Your task to perform on an android device: turn pop-ups on in chrome Image 0: 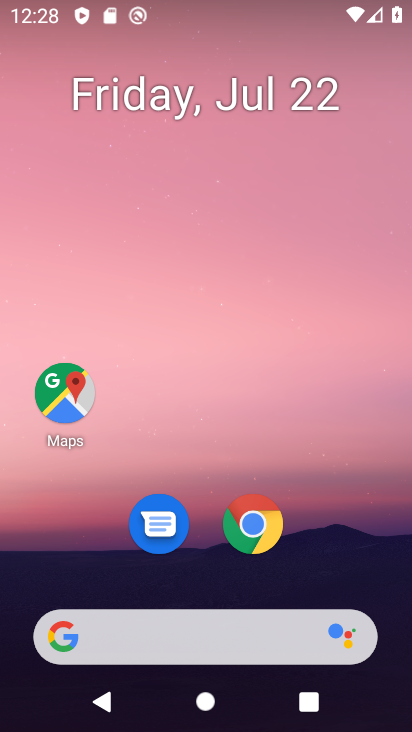
Step 0: click (257, 532)
Your task to perform on an android device: turn pop-ups on in chrome Image 1: 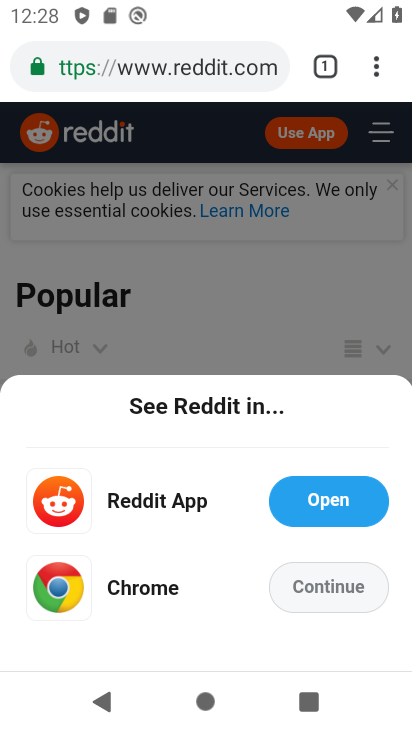
Step 1: drag from (379, 62) to (192, 532)
Your task to perform on an android device: turn pop-ups on in chrome Image 2: 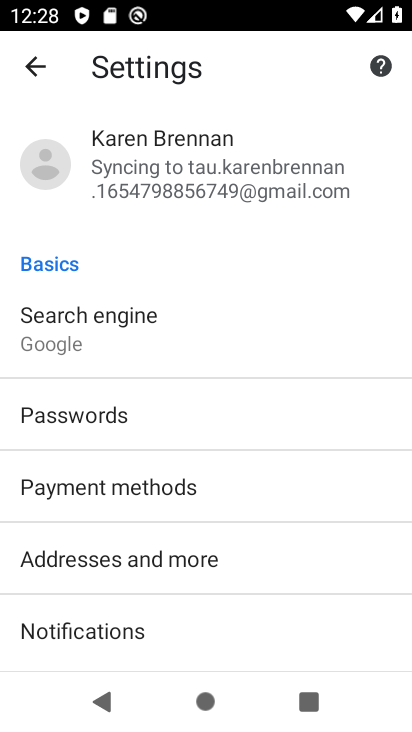
Step 2: drag from (190, 607) to (309, 243)
Your task to perform on an android device: turn pop-ups on in chrome Image 3: 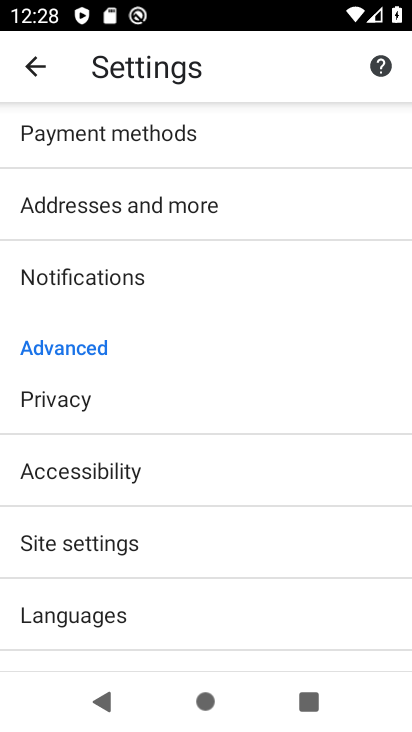
Step 3: click (129, 555)
Your task to perform on an android device: turn pop-ups on in chrome Image 4: 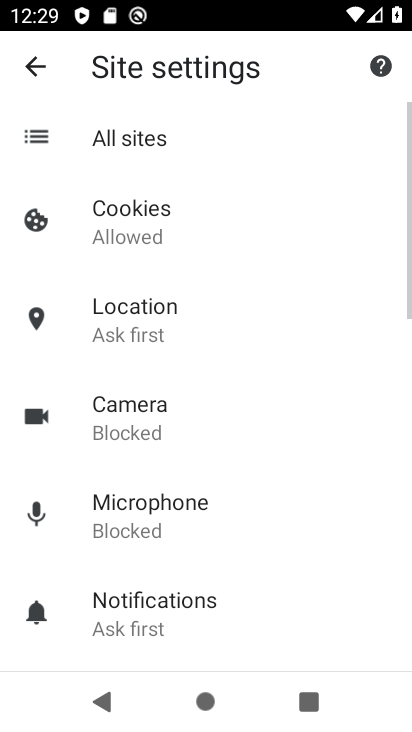
Step 4: drag from (235, 607) to (369, 141)
Your task to perform on an android device: turn pop-ups on in chrome Image 5: 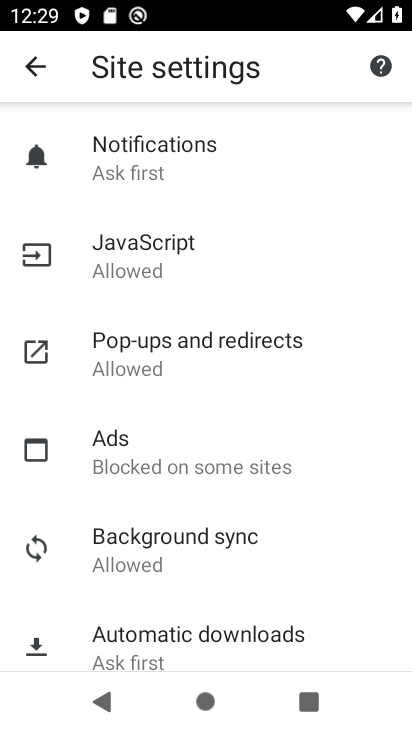
Step 5: click (186, 347)
Your task to perform on an android device: turn pop-ups on in chrome Image 6: 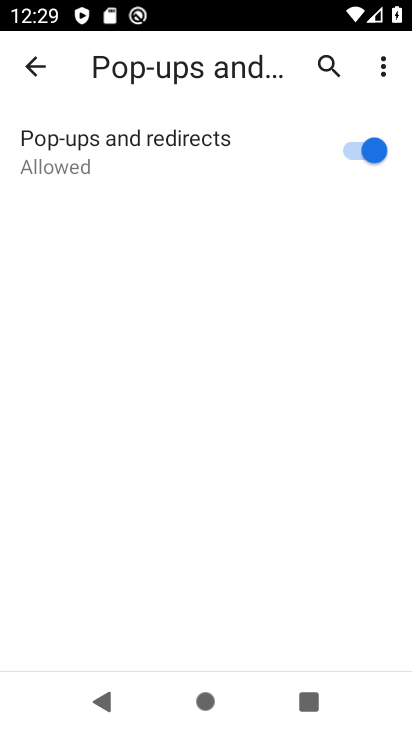
Step 6: task complete